Your task to perform on an android device: turn on wifi Image 0: 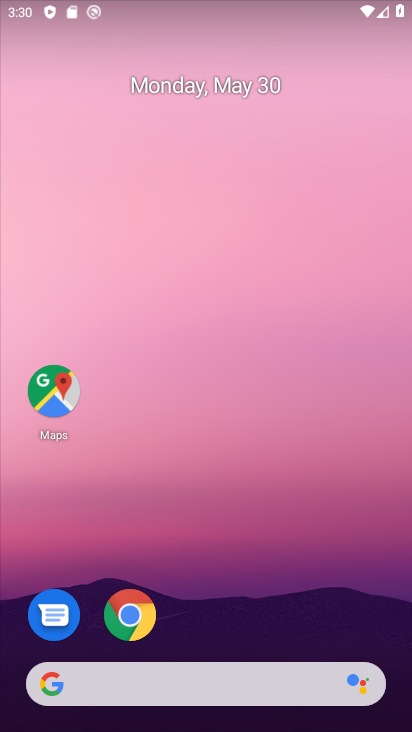
Step 0: drag from (264, 588) to (220, 142)
Your task to perform on an android device: turn on wifi Image 1: 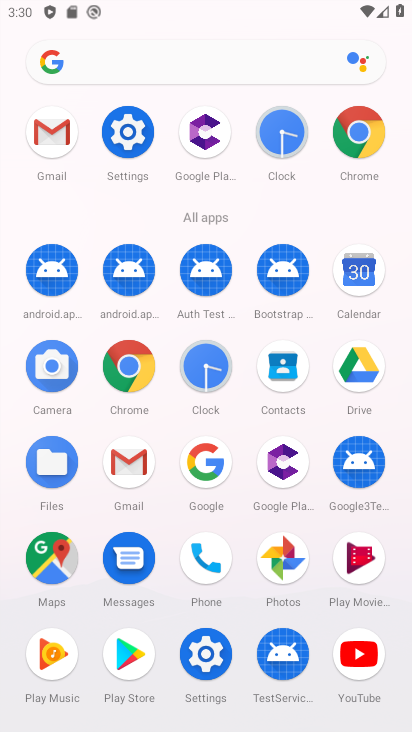
Step 1: click (129, 131)
Your task to perform on an android device: turn on wifi Image 2: 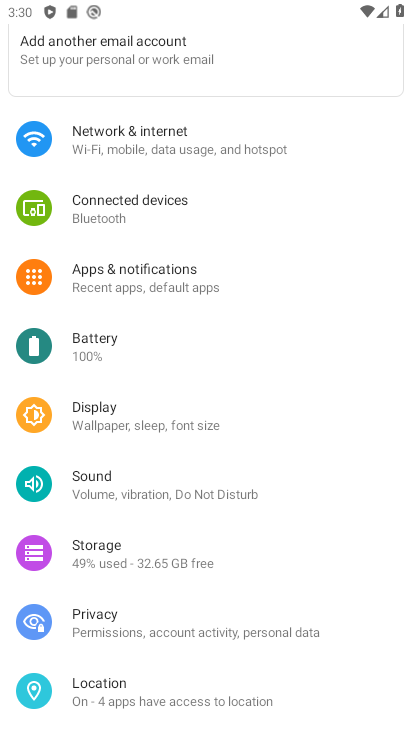
Step 2: click (131, 141)
Your task to perform on an android device: turn on wifi Image 3: 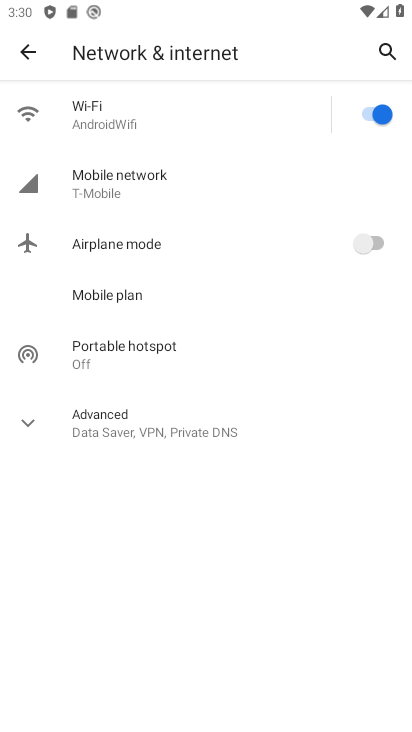
Step 3: task complete